Your task to perform on an android device: manage bookmarks in the chrome app Image 0: 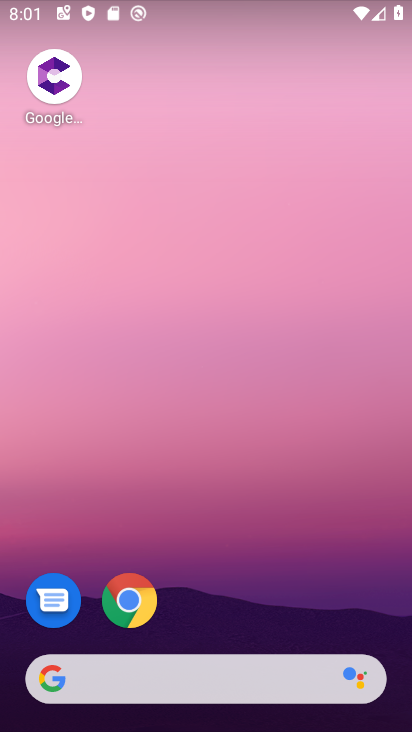
Step 0: drag from (224, 549) to (251, 18)
Your task to perform on an android device: manage bookmarks in the chrome app Image 1: 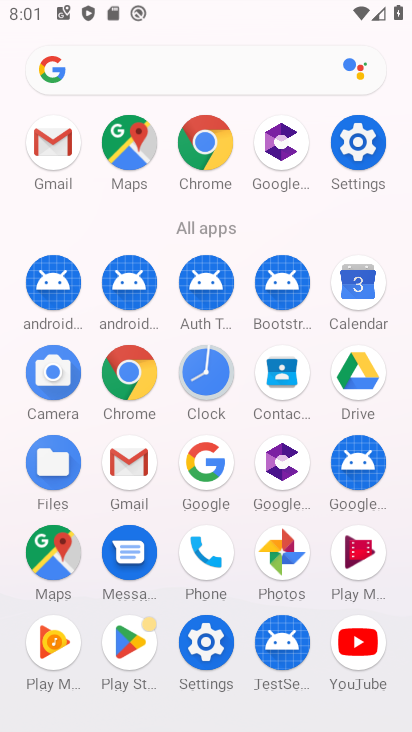
Step 1: click (208, 158)
Your task to perform on an android device: manage bookmarks in the chrome app Image 2: 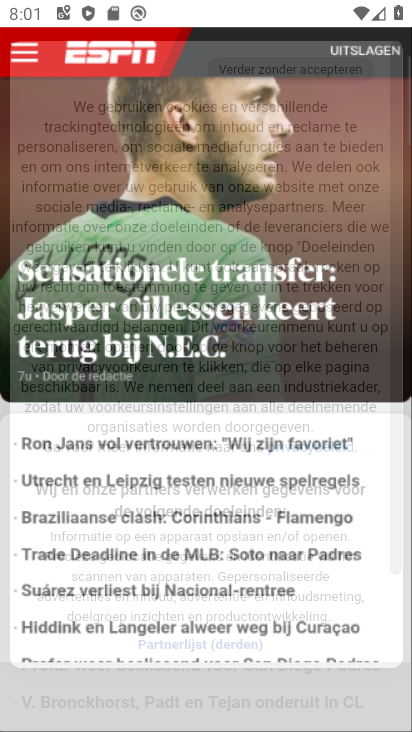
Step 2: drag from (336, 257) to (306, 618)
Your task to perform on an android device: manage bookmarks in the chrome app Image 3: 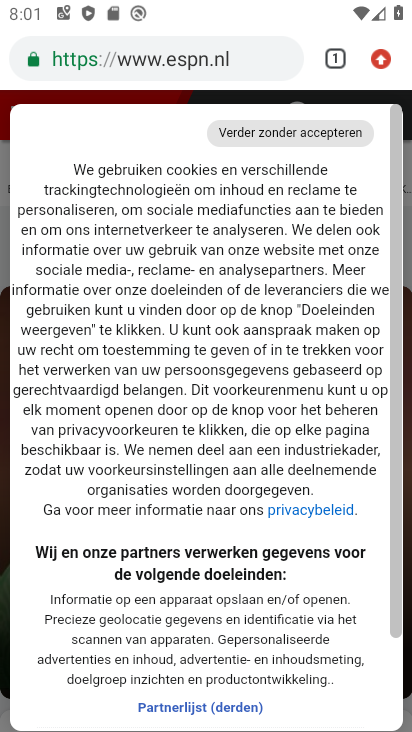
Step 3: click (374, 67)
Your task to perform on an android device: manage bookmarks in the chrome app Image 4: 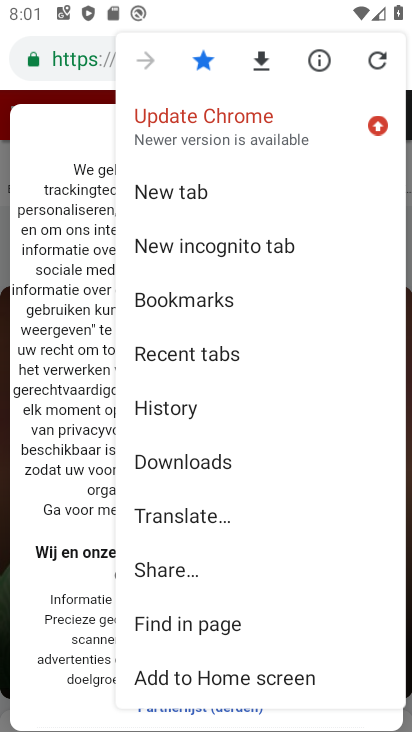
Step 4: drag from (203, 641) to (220, 566)
Your task to perform on an android device: manage bookmarks in the chrome app Image 5: 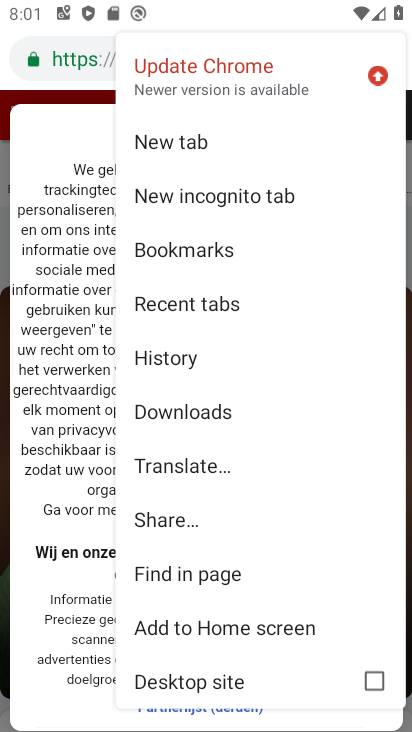
Step 5: click (209, 247)
Your task to perform on an android device: manage bookmarks in the chrome app Image 6: 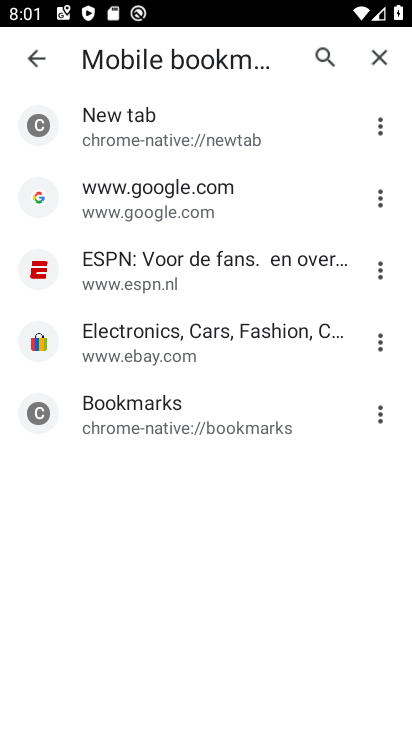
Step 6: click (382, 125)
Your task to perform on an android device: manage bookmarks in the chrome app Image 7: 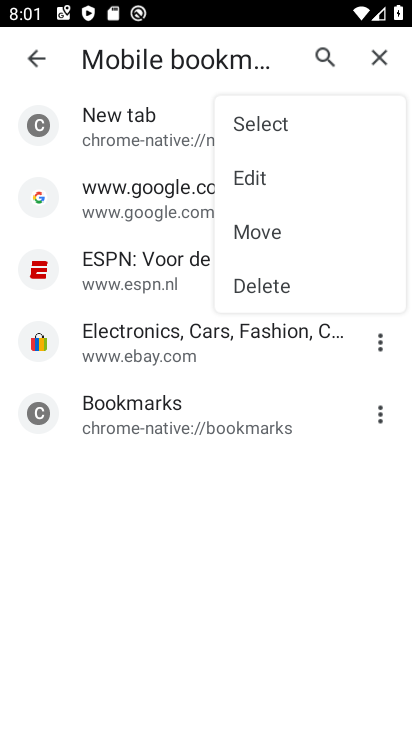
Step 7: click (280, 126)
Your task to perform on an android device: manage bookmarks in the chrome app Image 8: 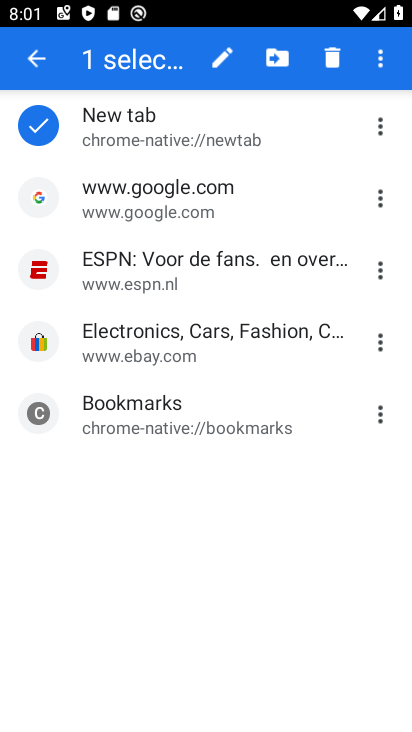
Step 8: click (225, 212)
Your task to perform on an android device: manage bookmarks in the chrome app Image 9: 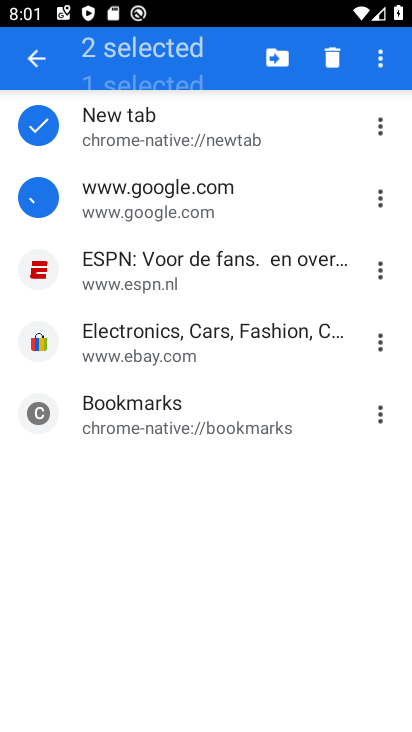
Step 9: click (201, 279)
Your task to perform on an android device: manage bookmarks in the chrome app Image 10: 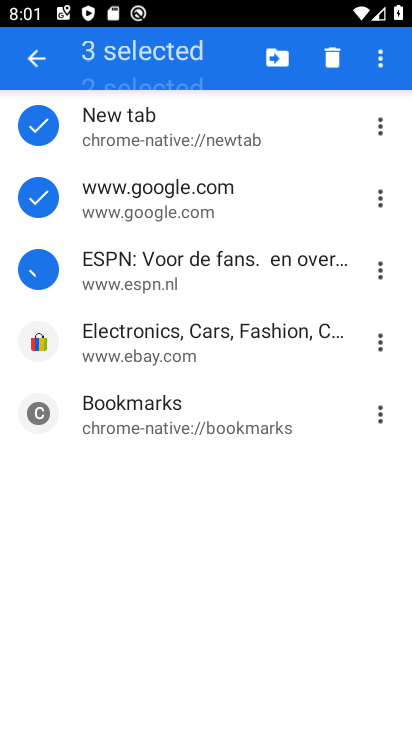
Step 10: click (167, 343)
Your task to perform on an android device: manage bookmarks in the chrome app Image 11: 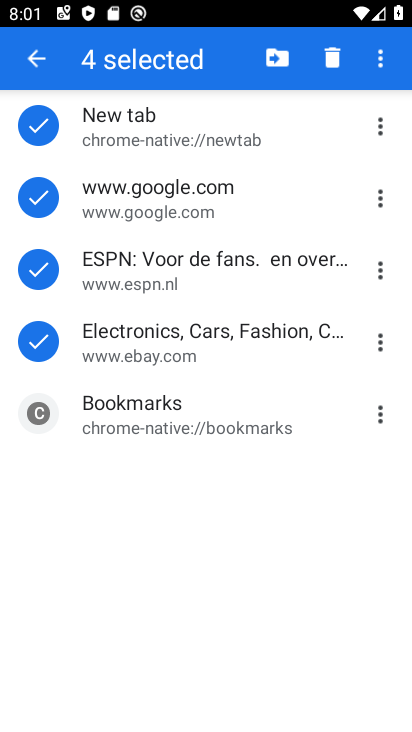
Step 11: click (281, 70)
Your task to perform on an android device: manage bookmarks in the chrome app Image 12: 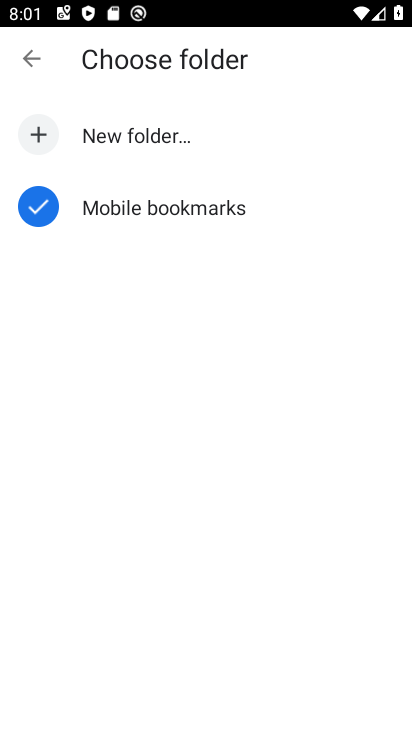
Step 12: click (145, 138)
Your task to perform on an android device: manage bookmarks in the chrome app Image 13: 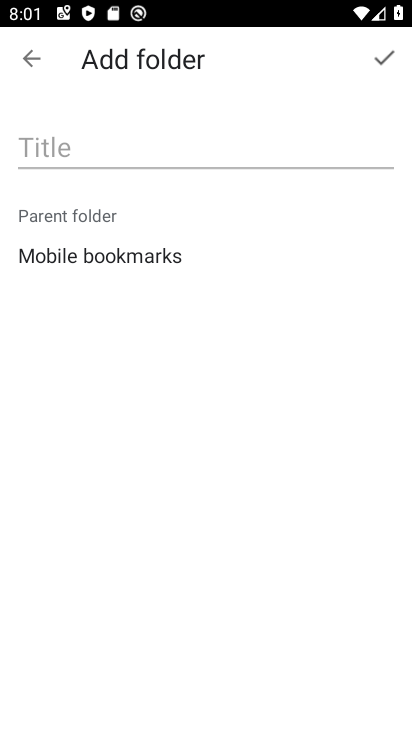
Step 13: click (185, 153)
Your task to perform on an android device: manage bookmarks in the chrome app Image 14: 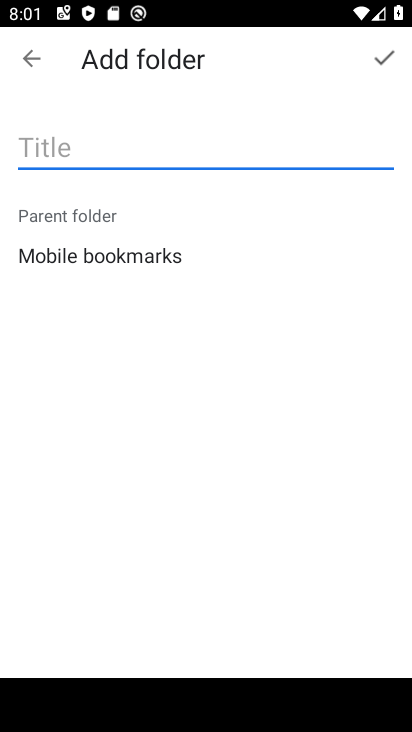
Step 14: type "booked"
Your task to perform on an android device: manage bookmarks in the chrome app Image 15: 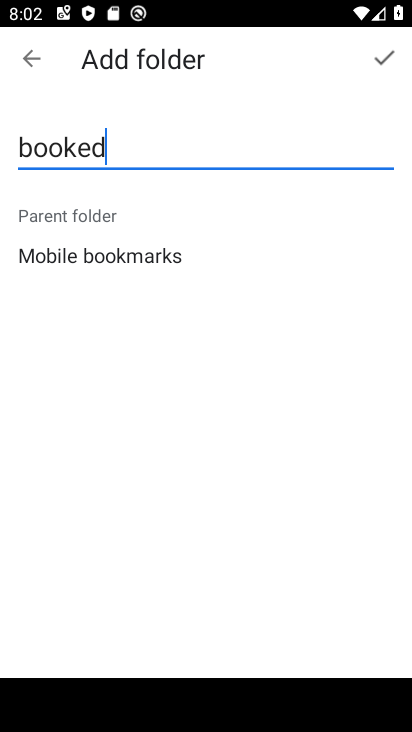
Step 15: click (391, 55)
Your task to perform on an android device: manage bookmarks in the chrome app Image 16: 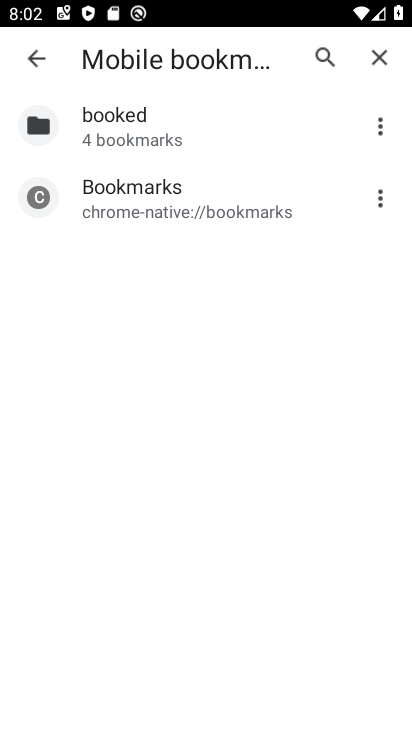
Step 16: task complete